Your task to perform on an android device: Add razer deathadder to the cart on ebay, then select checkout. Image 0: 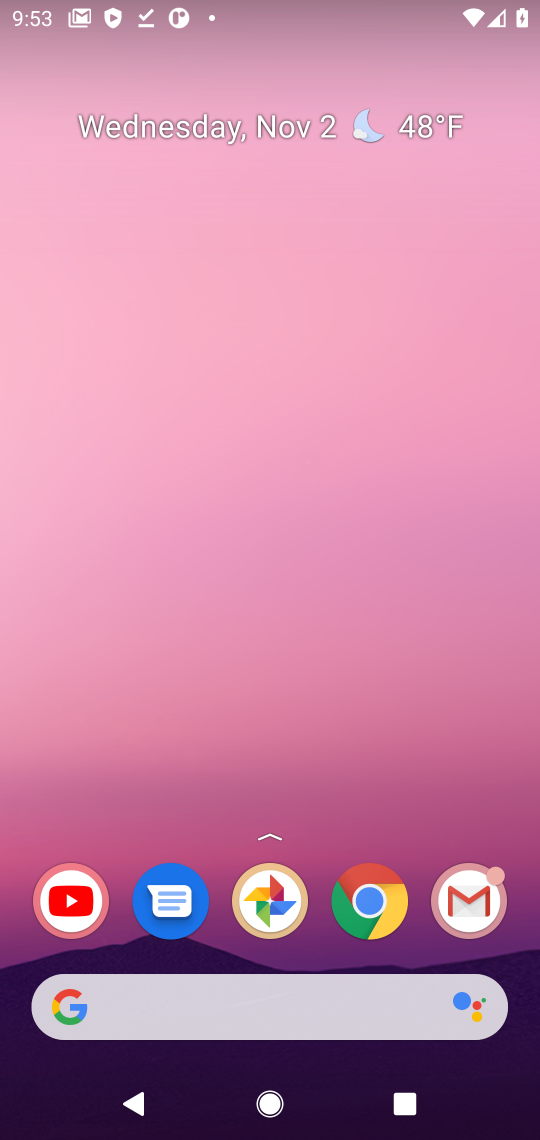
Step 0: click (375, 896)
Your task to perform on an android device: Add razer deathadder to the cart on ebay, then select checkout. Image 1: 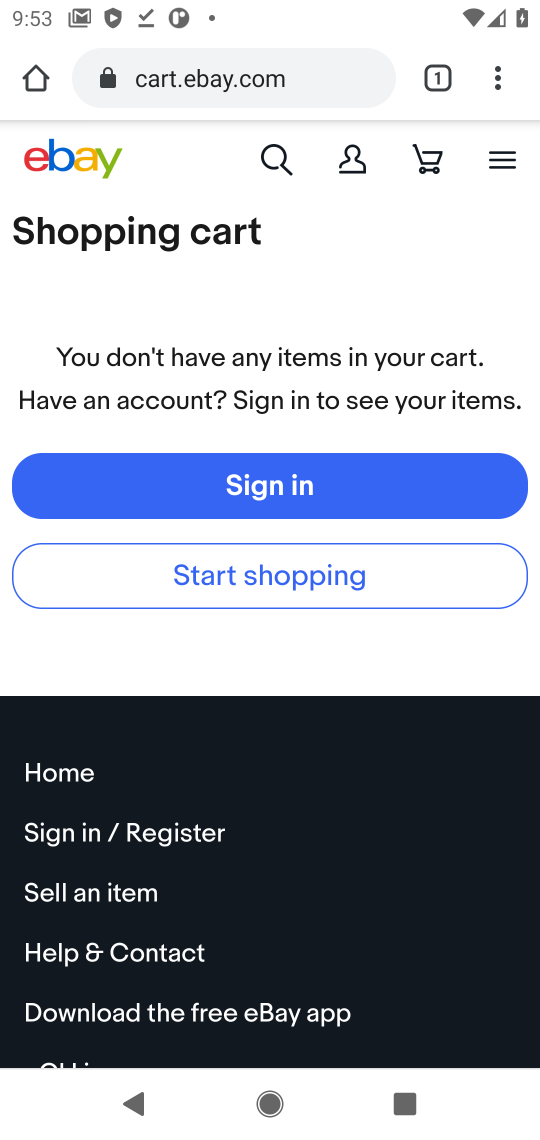
Step 1: click (293, 78)
Your task to perform on an android device: Add razer deathadder to the cart on ebay, then select checkout. Image 2: 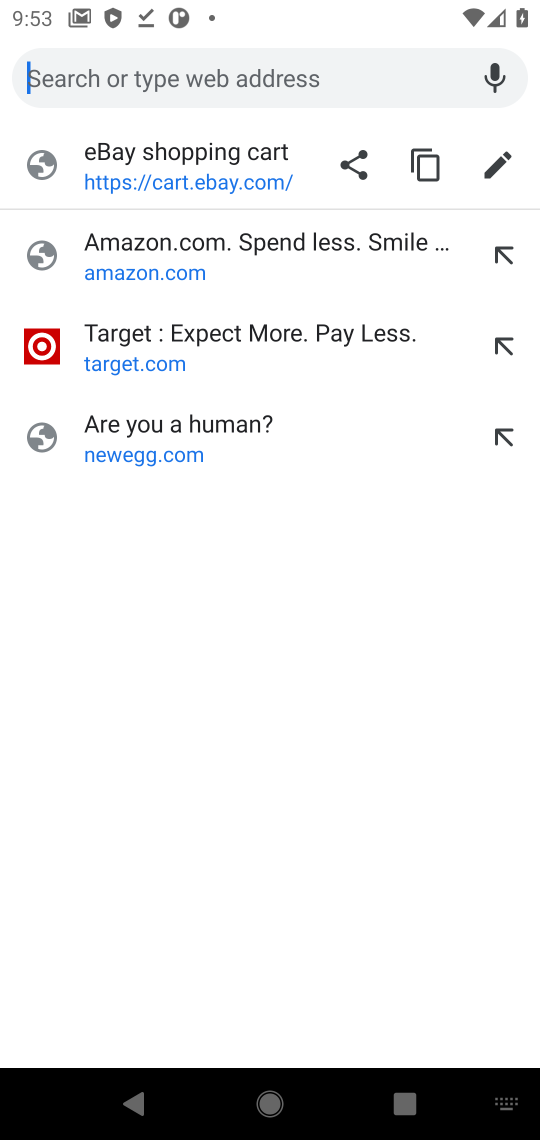
Step 2: press back button
Your task to perform on an android device: Add razer deathadder to the cart on ebay, then select checkout. Image 3: 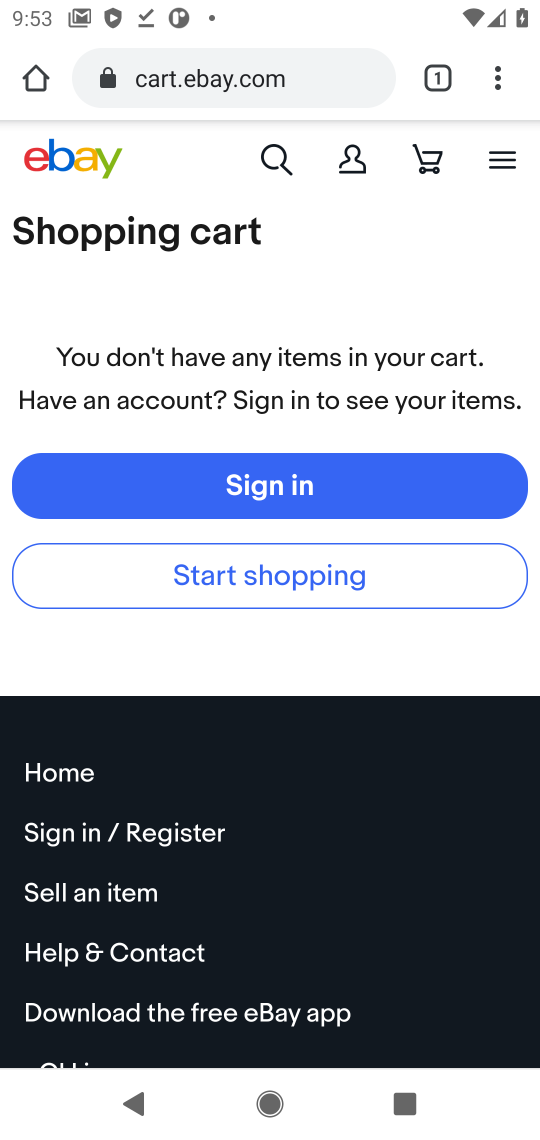
Step 3: click (267, 158)
Your task to perform on an android device: Add razer deathadder to the cart on ebay, then select checkout. Image 4: 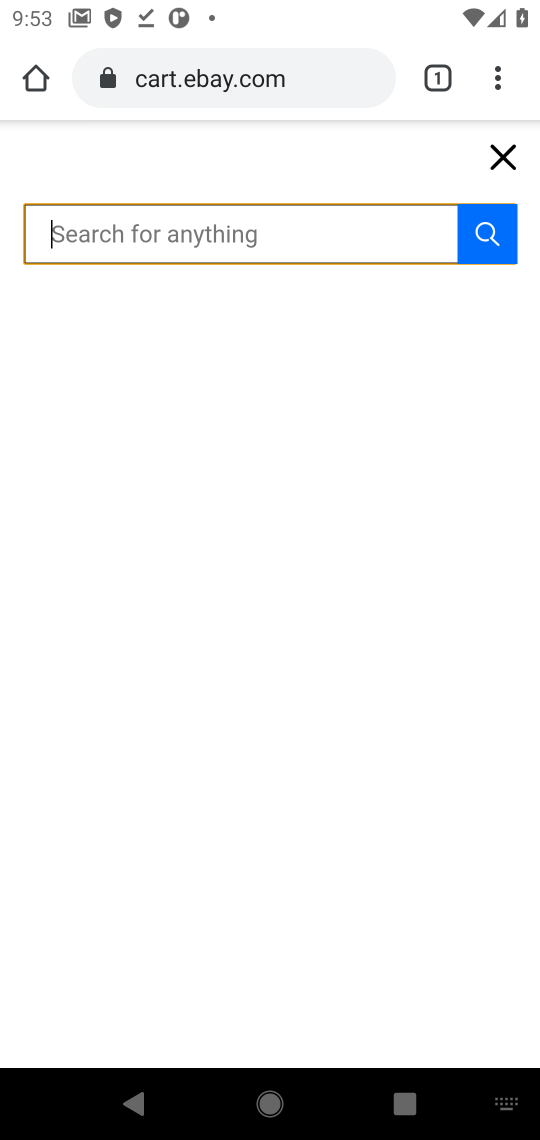
Step 4: type "razer deathadder"
Your task to perform on an android device: Add razer deathadder to the cart on ebay, then select checkout. Image 5: 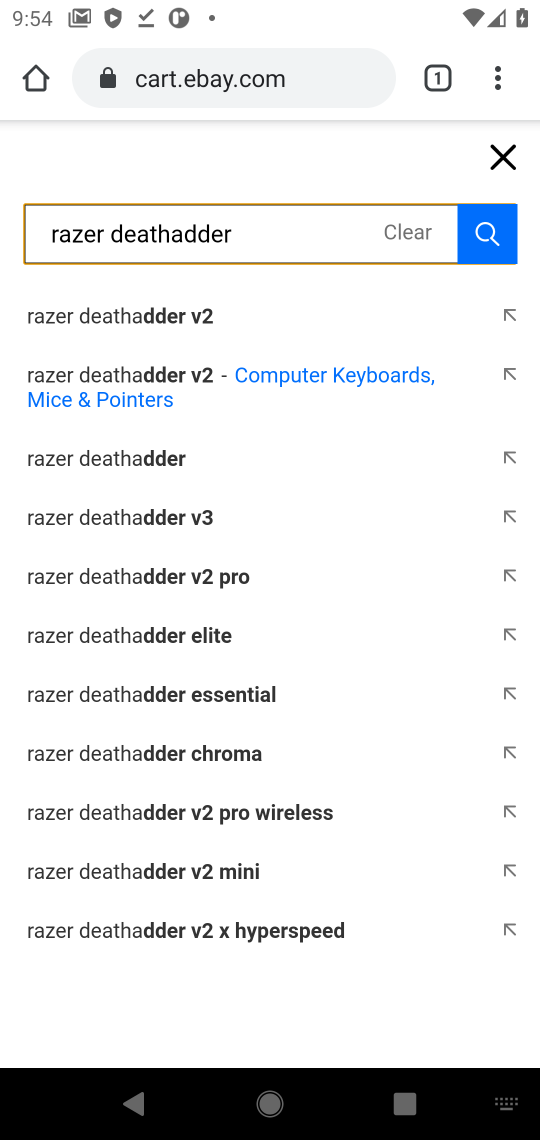
Step 5: click (482, 242)
Your task to perform on an android device: Add razer deathadder to the cart on ebay, then select checkout. Image 6: 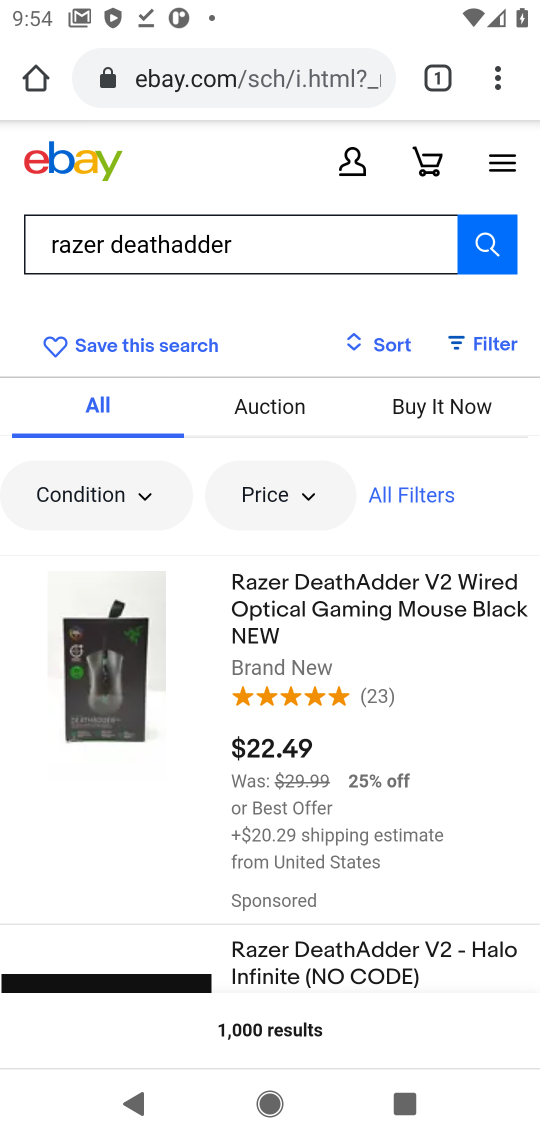
Step 6: click (288, 616)
Your task to perform on an android device: Add razer deathadder to the cart on ebay, then select checkout. Image 7: 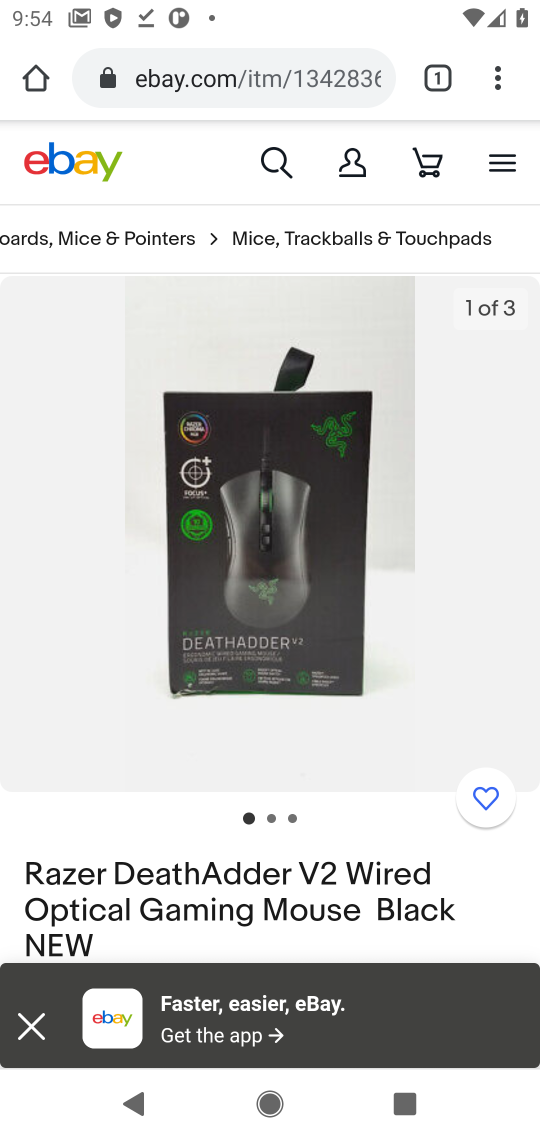
Step 7: drag from (369, 955) to (260, 262)
Your task to perform on an android device: Add razer deathadder to the cart on ebay, then select checkout. Image 8: 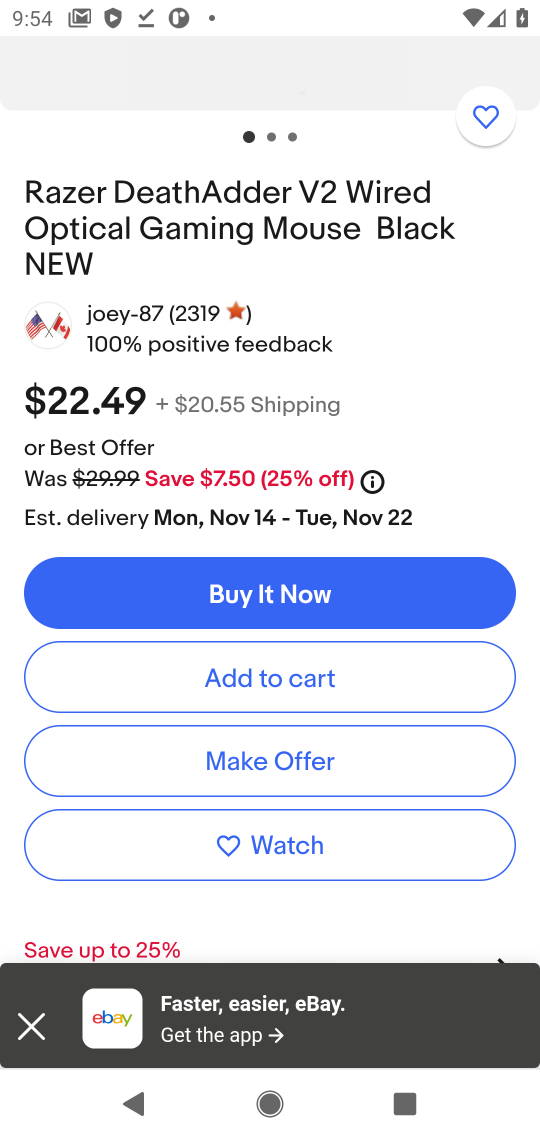
Step 8: click (254, 680)
Your task to perform on an android device: Add razer deathadder to the cart on ebay, then select checkout. Image 9: 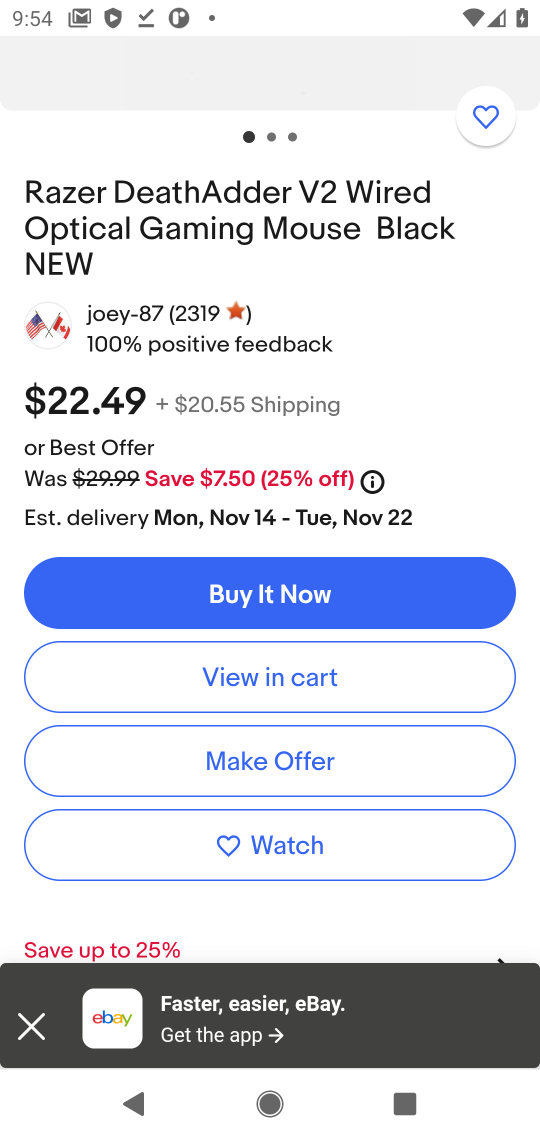
Step 9: click (254, 680)
Your task to perform on an android device: Add razer deathadder to the cart on ebay, then select checkout. Image 10: 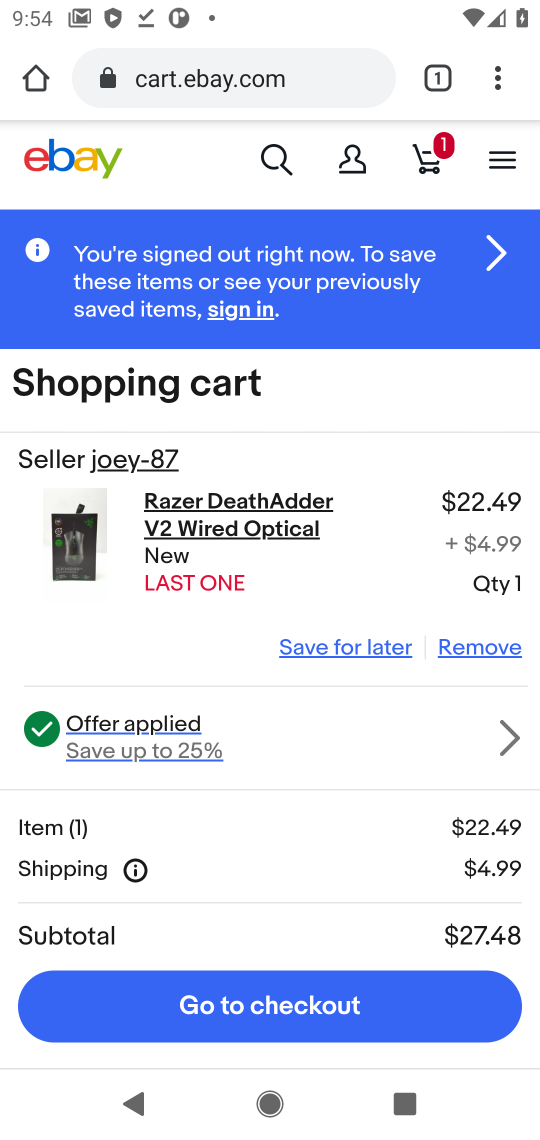
Step 10: click (260, 999)
Your task to perform on an android device: Add razer deathadder to the cart on ebay, then select checkout. Image 11: 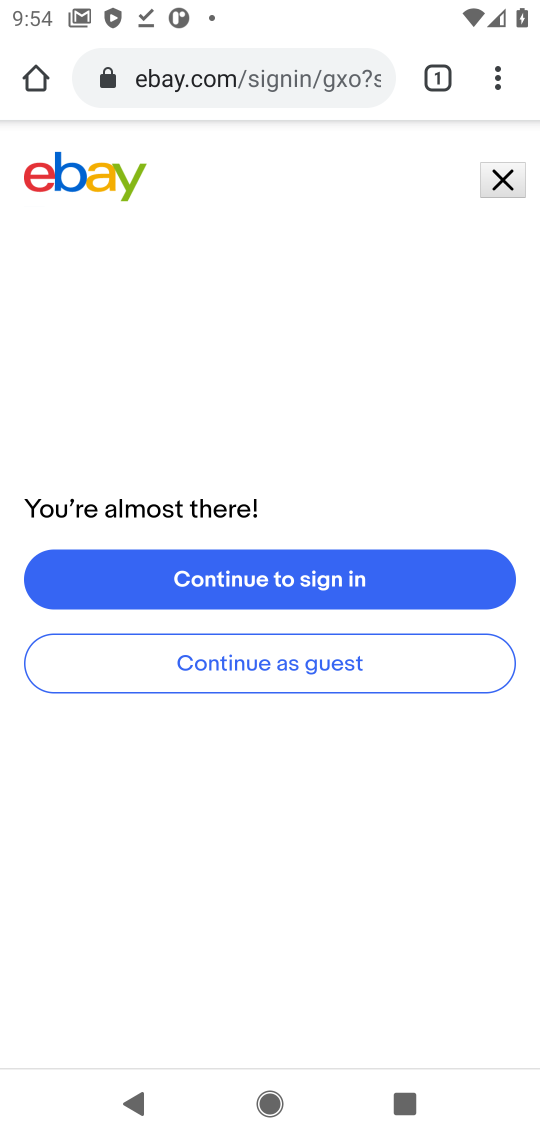
Step 11: task complete